Your task to perform on an android device: open sync settings in chrome Image 0: 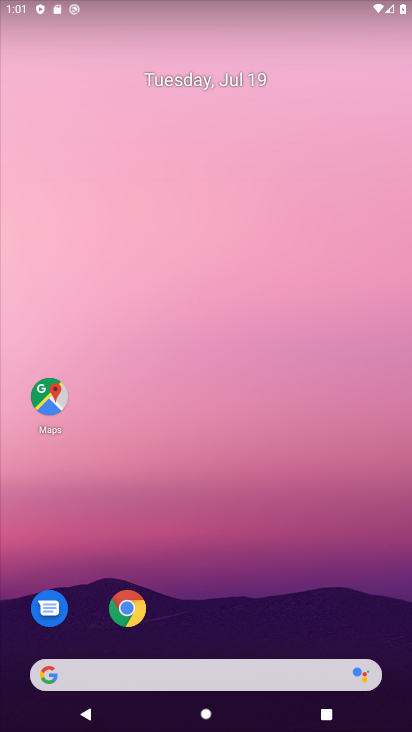
Step 0: click (132, 612)
Your task to perform on an android device: open sync settings in chrome Image 1: 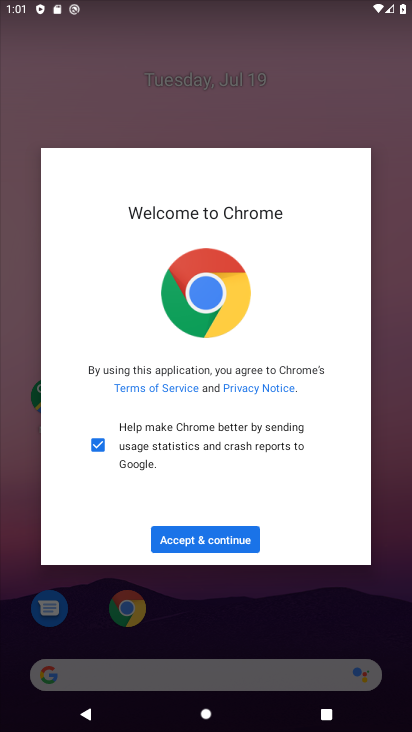
Step 1: click (194, 544)
Your task to perform on an android device: open sync settings in chrome Image 2: 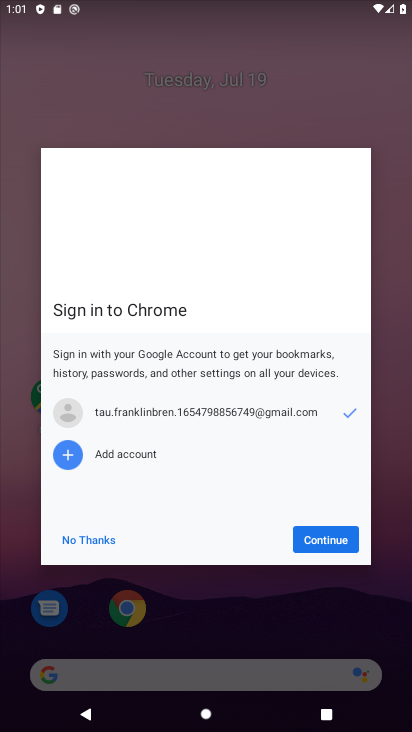
Step 2: click (311, 527)
Your task to perform on an android device: open sync settings in chrome Image 3: 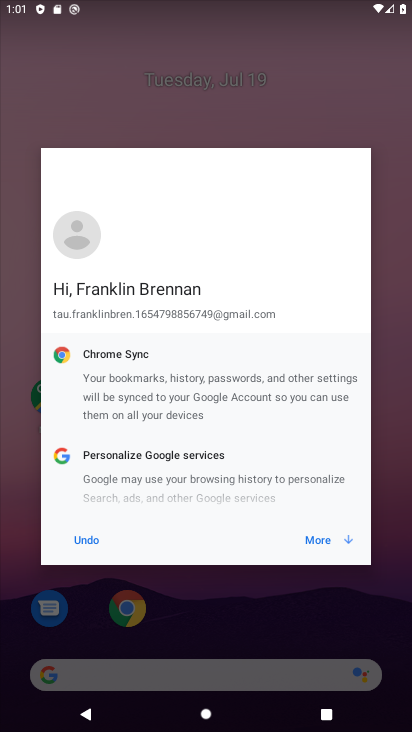
Step 3: click (311, 527)
Your task to perform on an android device: open sync settings in chrome Image 4: 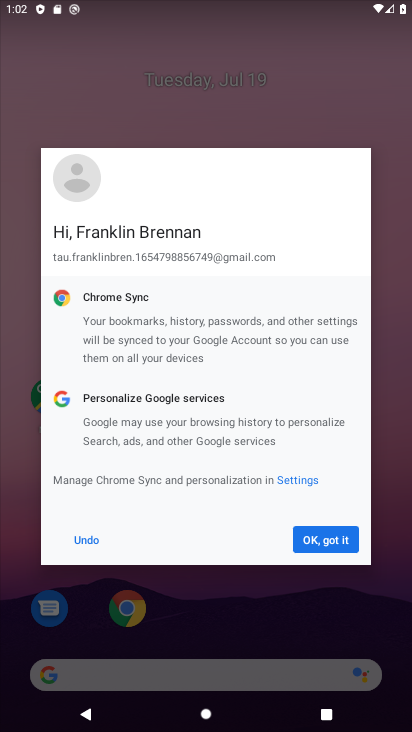
Step 4: click (332, 528)
Your task to perform on an android device: open sync settings in chrome Image 5: 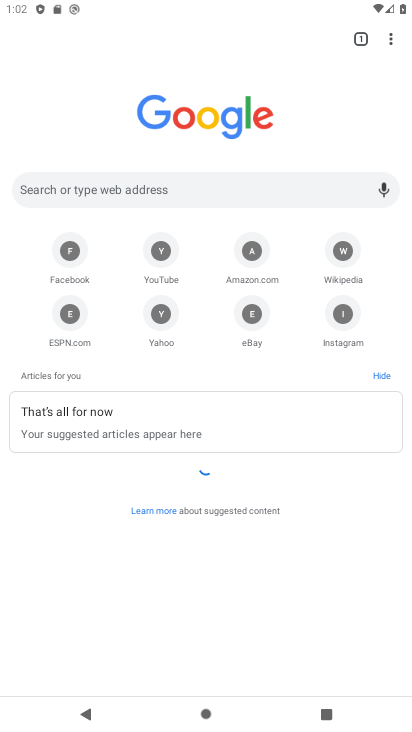
Step 5: click (387, 36)
Your task to perform on an android device: open sync settings in chrome Image 6: 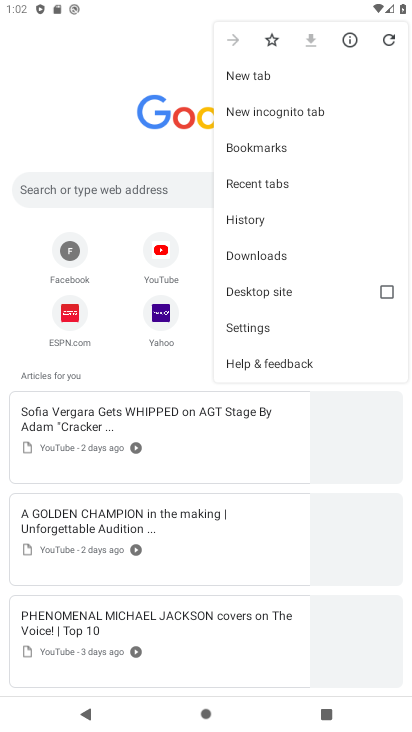
Step 6: click (281, 326)
Your task to perform on an android device: open sync settings in chrome Image 7: 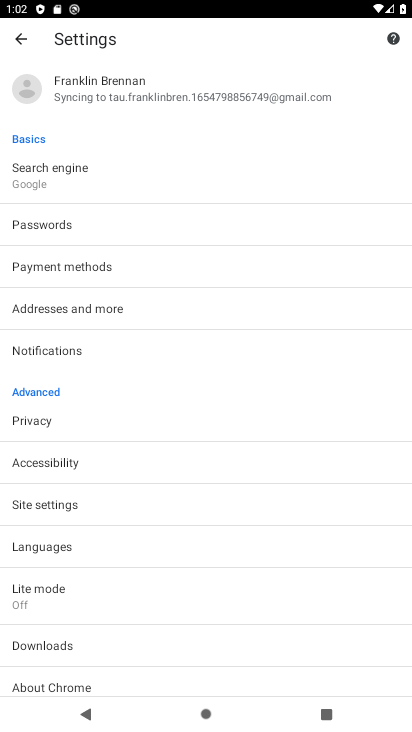
Step 7: click (186, 100)
Your task to perform on an android device: open sync settings in chrome Image 8: 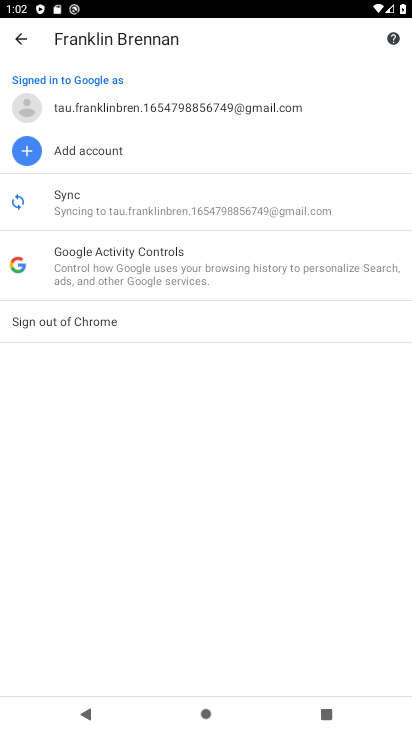
Step 8: click (102, 190)
Your task to perform on an android device: open sync settings in chrome Image 9: 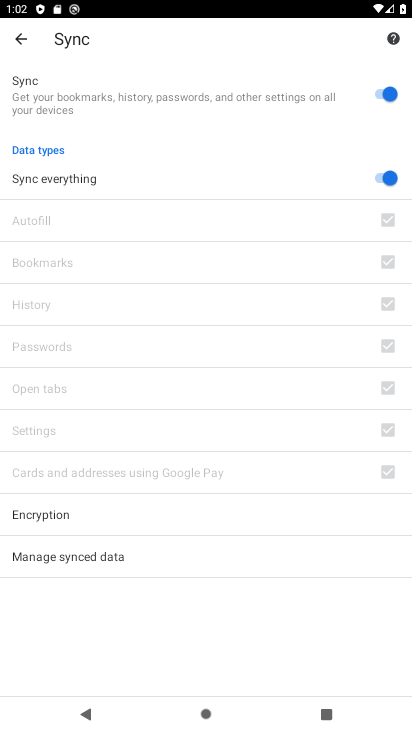
Step 9: task complete